Your task to perform on an android device: Open Google Chrome and open the bookmarks view Image 0: 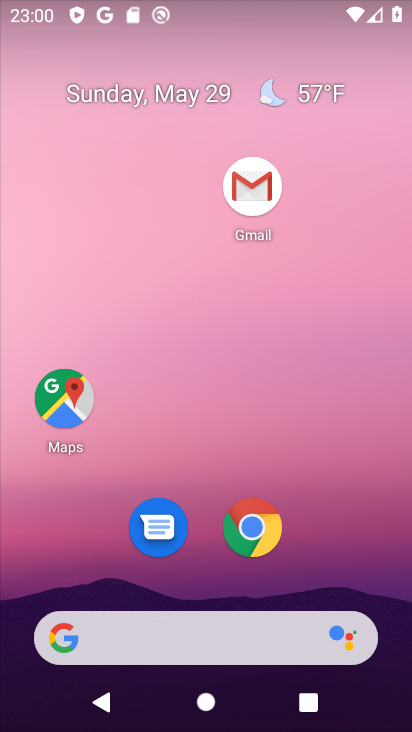
Step 0: click (254, 527)
Your task to perform on an android device: Open Google Chrome and open the bookmarks view Image 1: 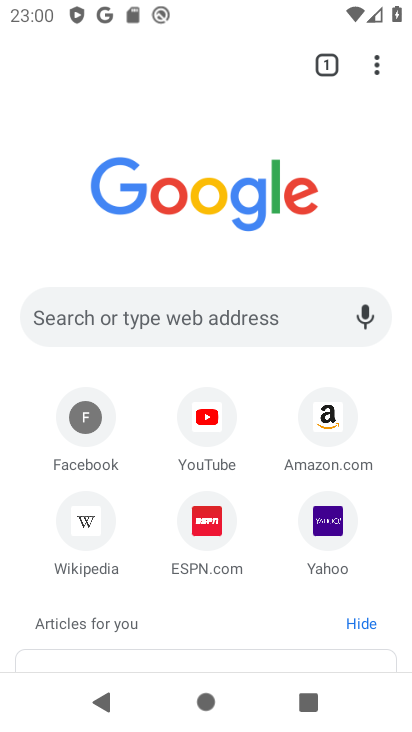
Step 1: click (376, 63)
Your task to perform on an android device: Open Google Chrome and open the bookmarks view Image 2: 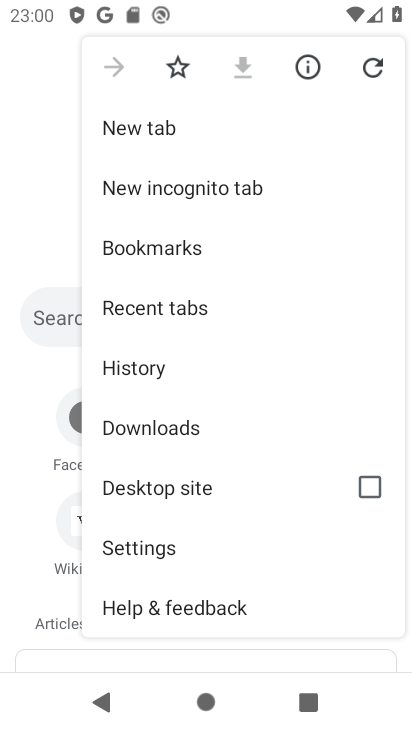
Step 2: click (190, 252)
Your task to perform on an android device: Open Google Chrome and open the bookmarks view Image 3: 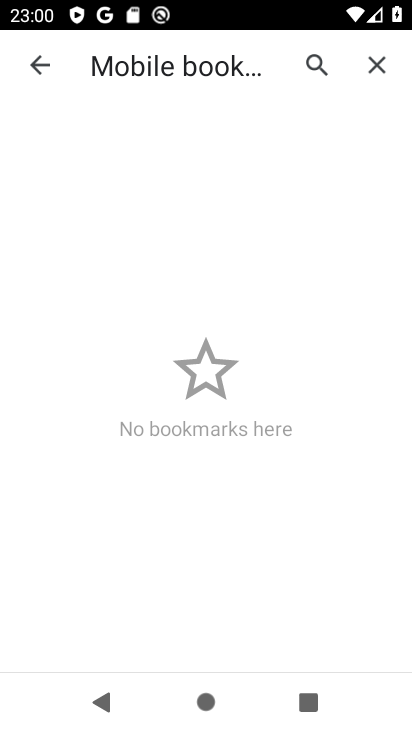
Step 3: task complete